Your task to perform on an android device: Go to accessibility settings Image 0: 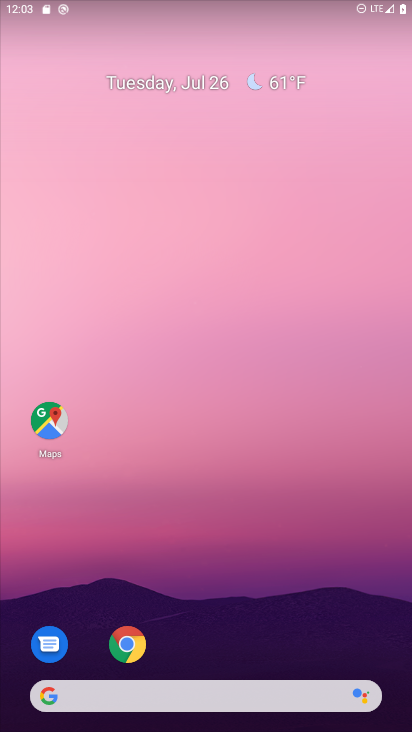
Step 0: drag from (208, 693) to (204, 547)
Your task to perform on an android device: Go to accessibility settings Image 1: 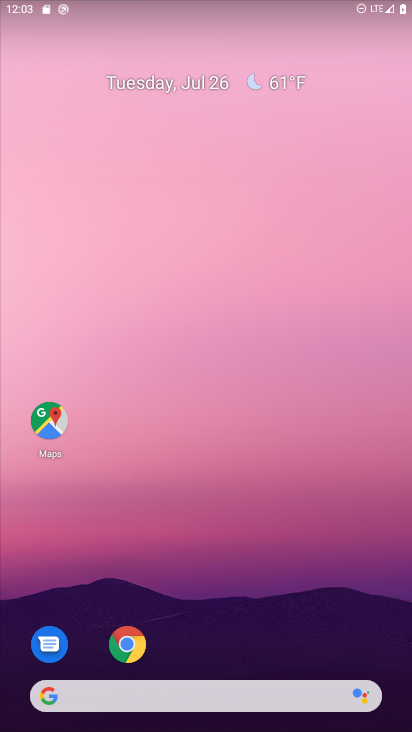
Step 1: drag from (227, 641) to (134, 102)
Your task to perform on an android device: Go to accessibility settings Image 2: 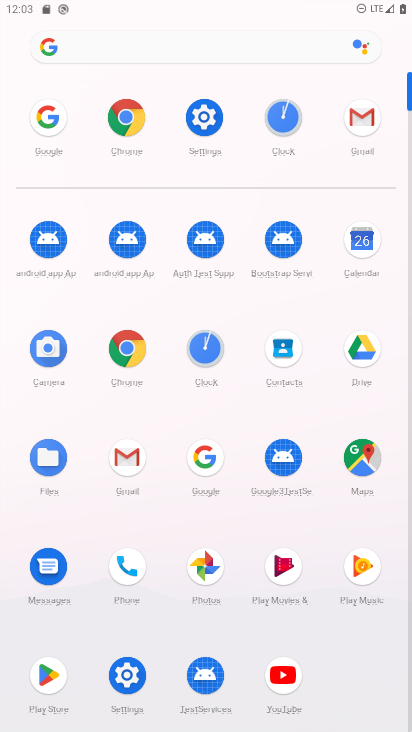
Step 2: click (208, 106)
Your task to perform on an android device: Go to accessibility settings Image 3: 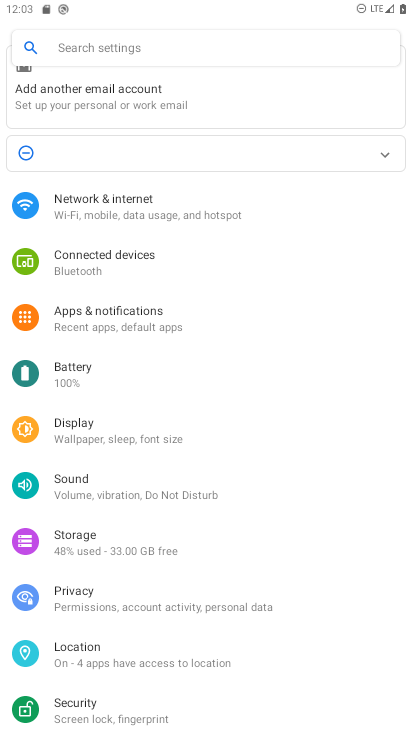
Step 3: drag from (121, 673) to (89, 425)
Your task to perform on an android device: Go to accessibility settings Image 4: 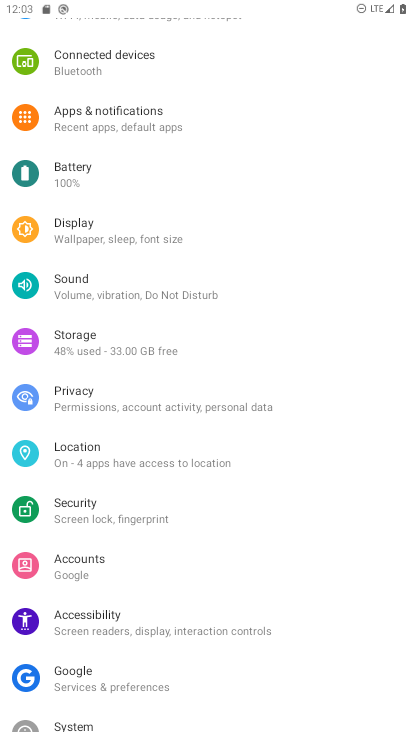
Step 4: click (83, 619)
Your task to perform on an android device: Go to accessibility settings Image 5: 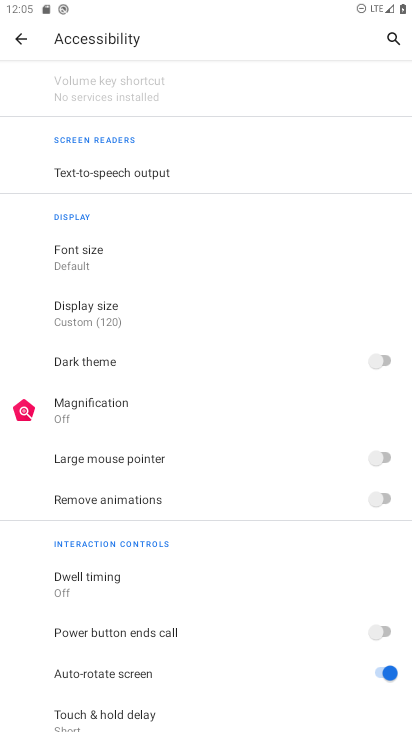
Step 5: task complete